Your task to perform on an android device: move a message to another label in the gmail app Image 0: 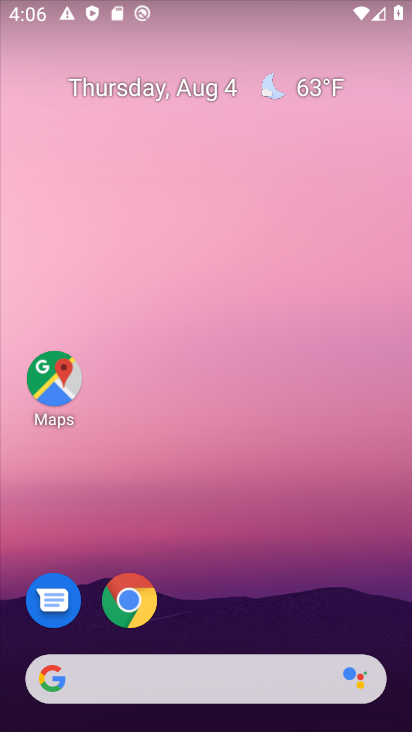
Step 0: drag from (338, 567) to (255, 109)
Your task to perform on an android device: move a message to another label in the gmail app Image 1: 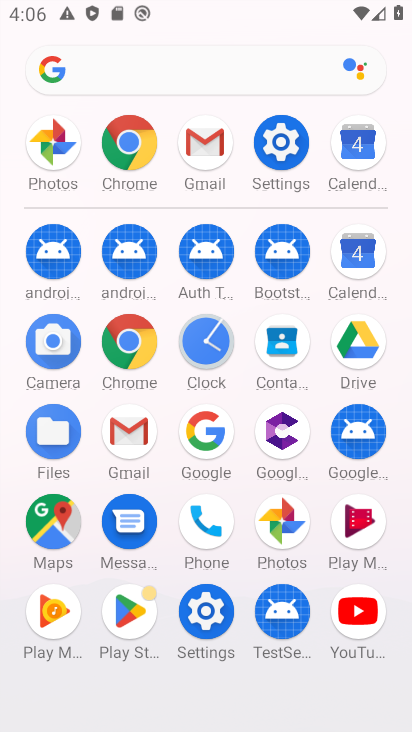
Step 1: click (207, 141)
Your task to perform on an android device: move a message to another label in the gmail app Image 2: 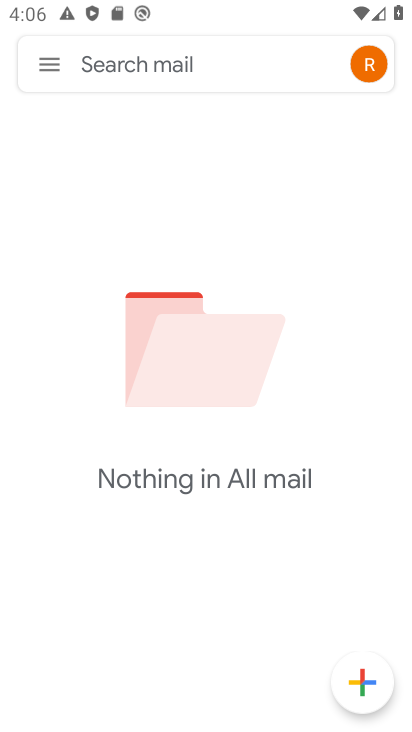
Step 2: click (53, 53)
Your task to perform on an android device: move a message to another label in the gmail app Image 3: 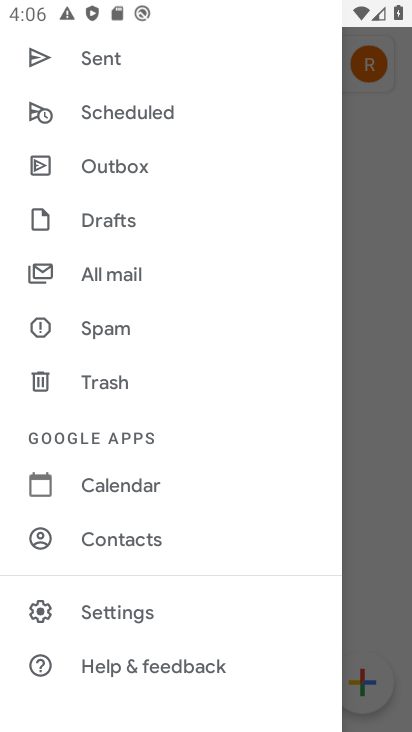
Step 3: click (140, 272)
Your task to perform on an android device: move a message to another label in the gmail app Image 4: 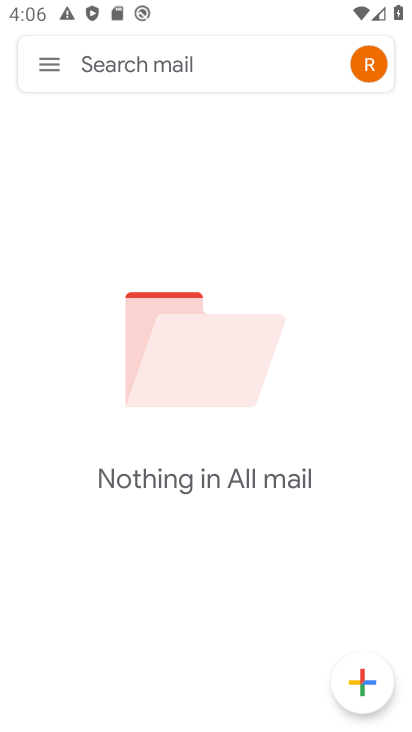
Step 4: task complete